Your task to perform on an android device: change the clock display to show seconds Image 0: 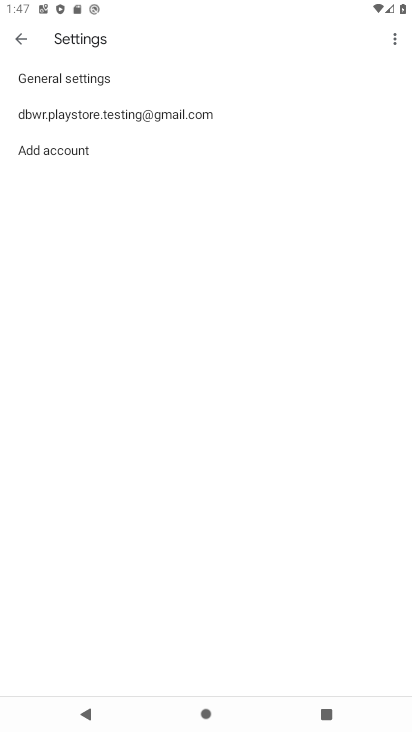
Step 0: press home button
Your task to perform on an android device: change the clock display to show seconds Image 1: 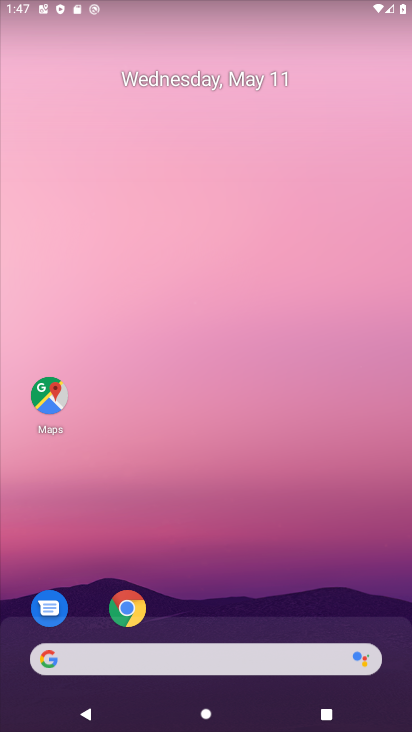
Step 1: drag from (221, 557) to (250, 135)
Your task to perform on an android device: change the clock display to show seconds Image 2: 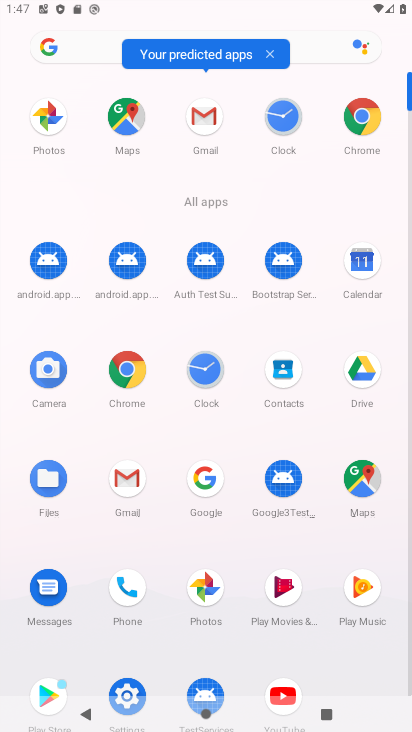
Step 2: click (209, 368)
Your task to perform on an android device: change the clock display to show seconds Image 3: 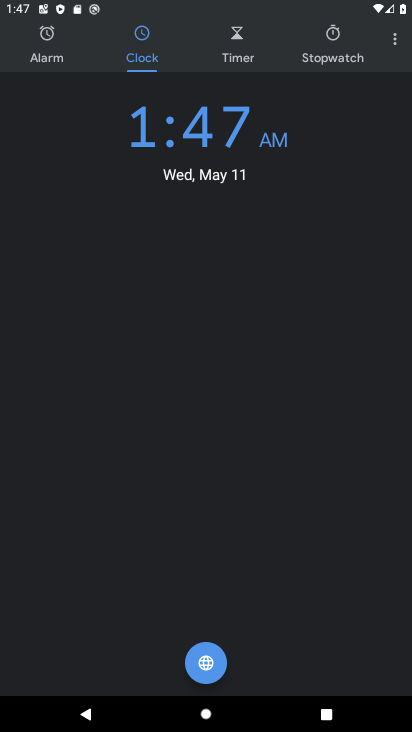
Step 3: click (387, 43)
Your task to perform on an android device: change the clock display to show seconds Image 4: 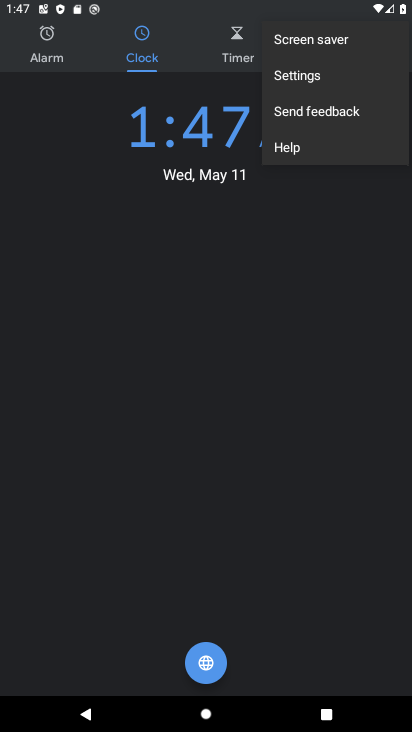
Step 4: click (336, 75)
Your task to perform on an android device: change the clock display to show seconds Image 5: 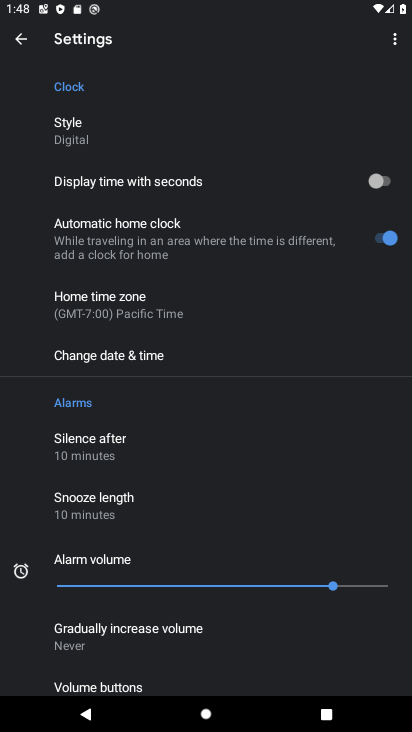
Step 5: click (373, 173)
Your task to perform on an android device: change the clock display to show seconds Image 6: 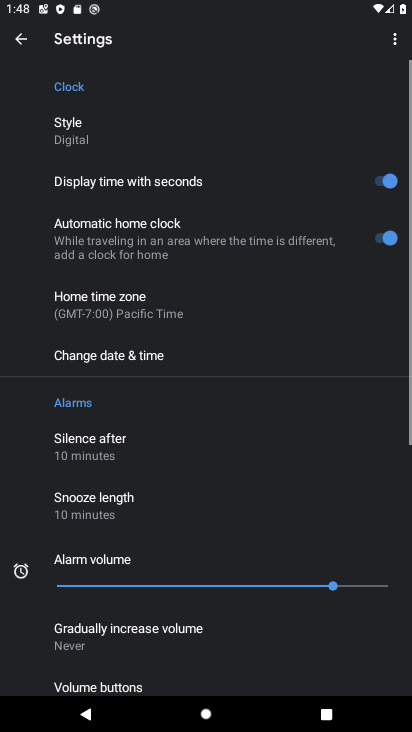
Step 6: task complete